Your task to perform on an android device: delete location history Image 0: 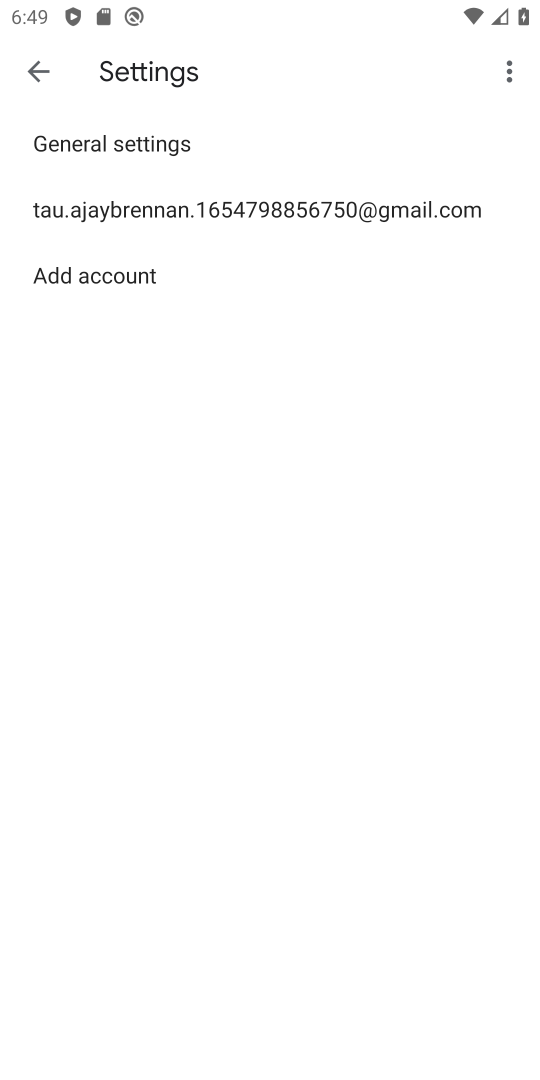
Step 0: press home button
Your task to perform on an android device: delete location history Image 1: 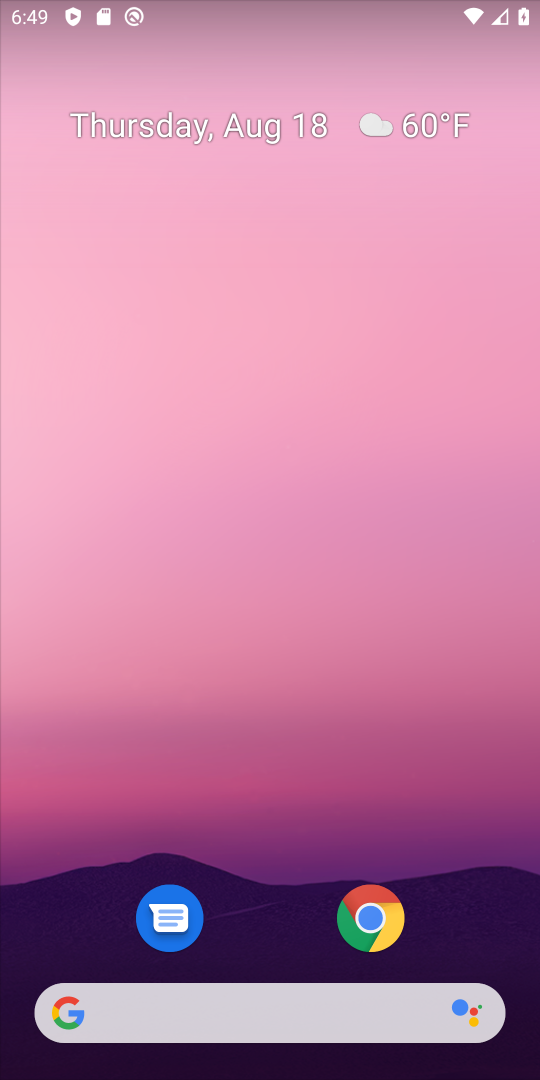
Step 1: drag from (234, 946) to (316, 18)
Your task to perform on an android device: delete location history Image 2: 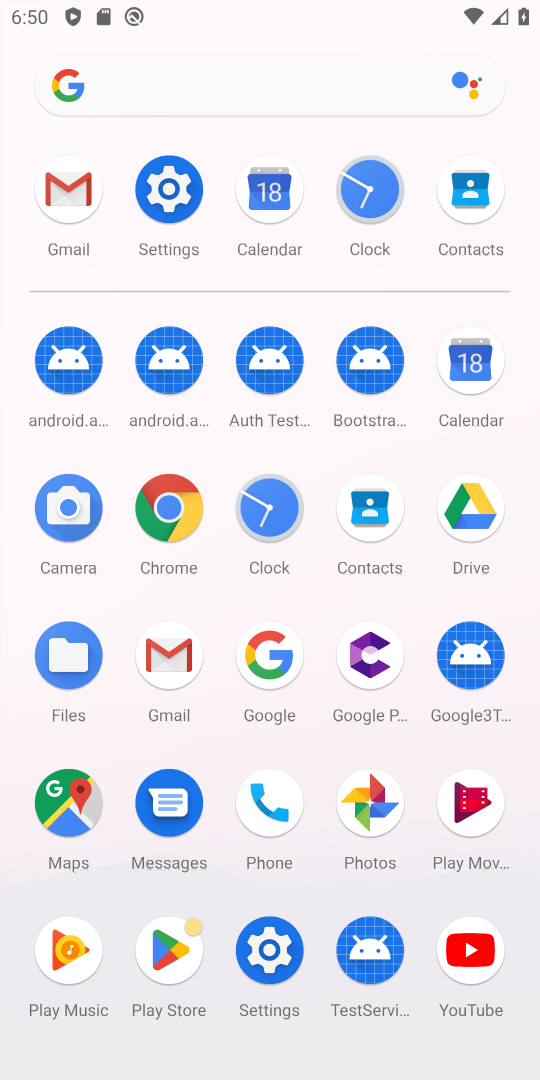
Step 2: click (64, 830)
Your task to perform on an android device: delete location history Image 3: 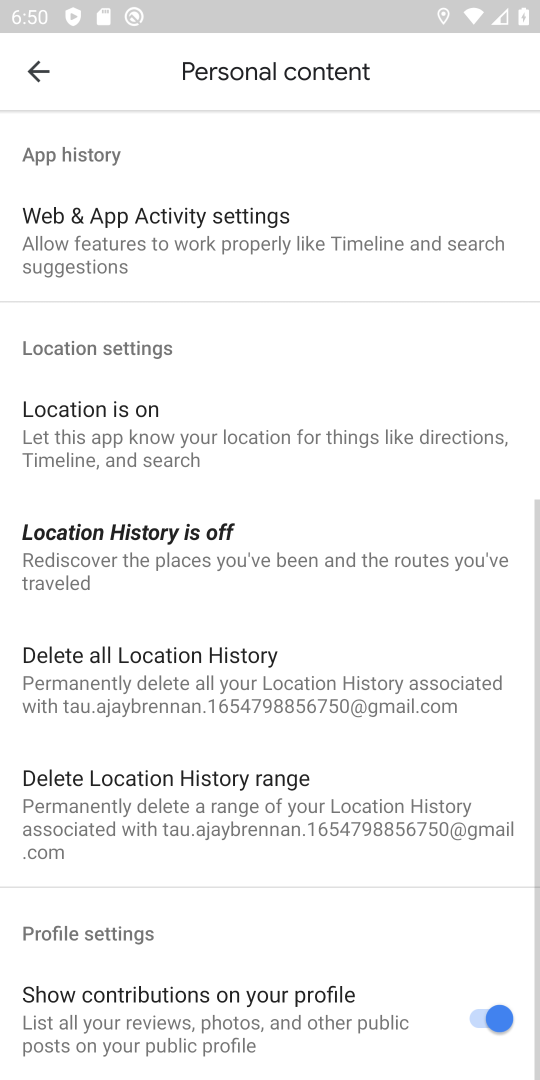
Step 3: click (217, 713)
Your task to perform on an android device: delete location history Image 4: 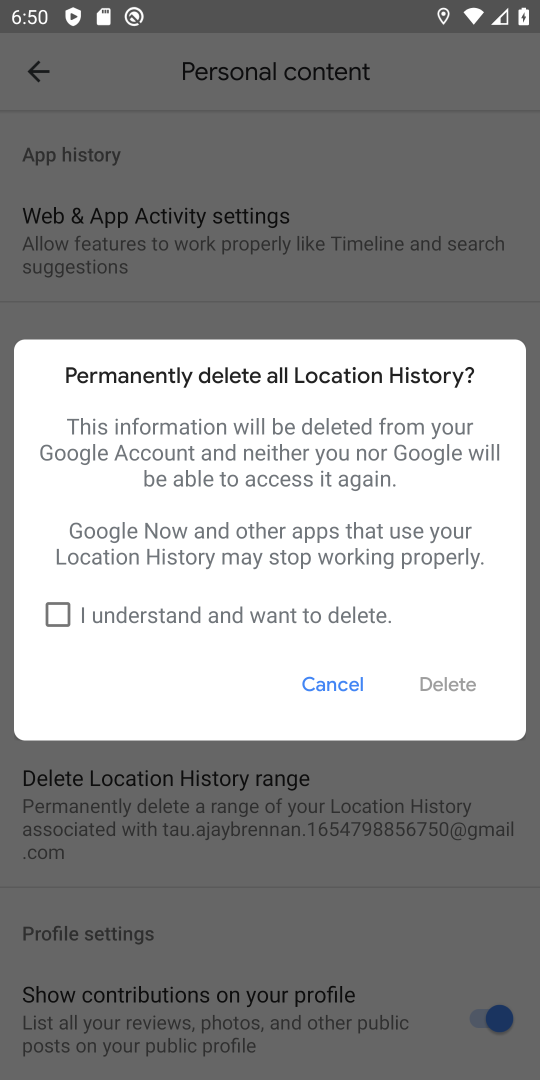
Step 4: click (57, 618)
Your task to perform on an android device: delete location history Image 5: 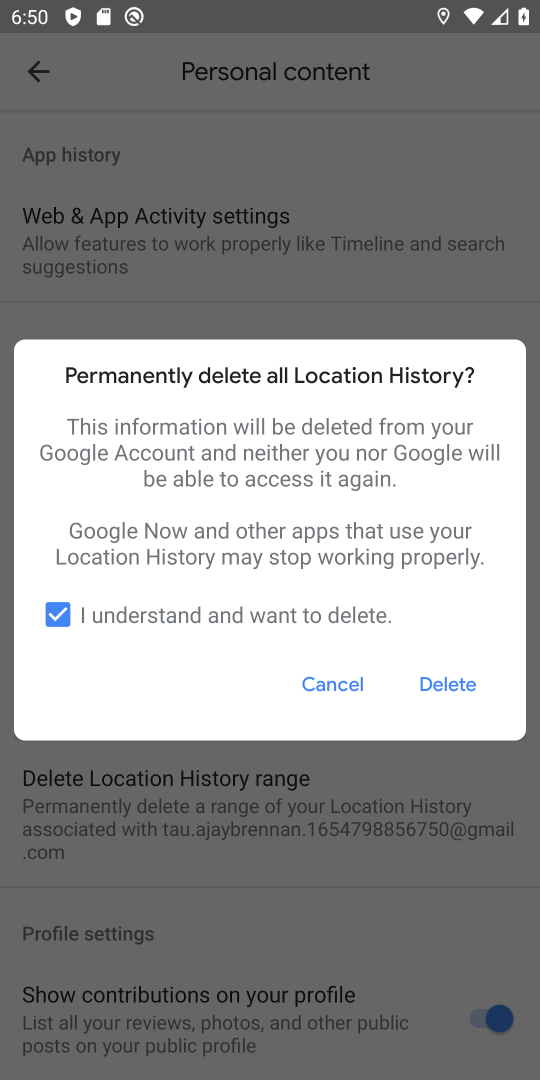
Step 5: click (454, 690)
Your task to perform on an android device: delete location history Image 6: 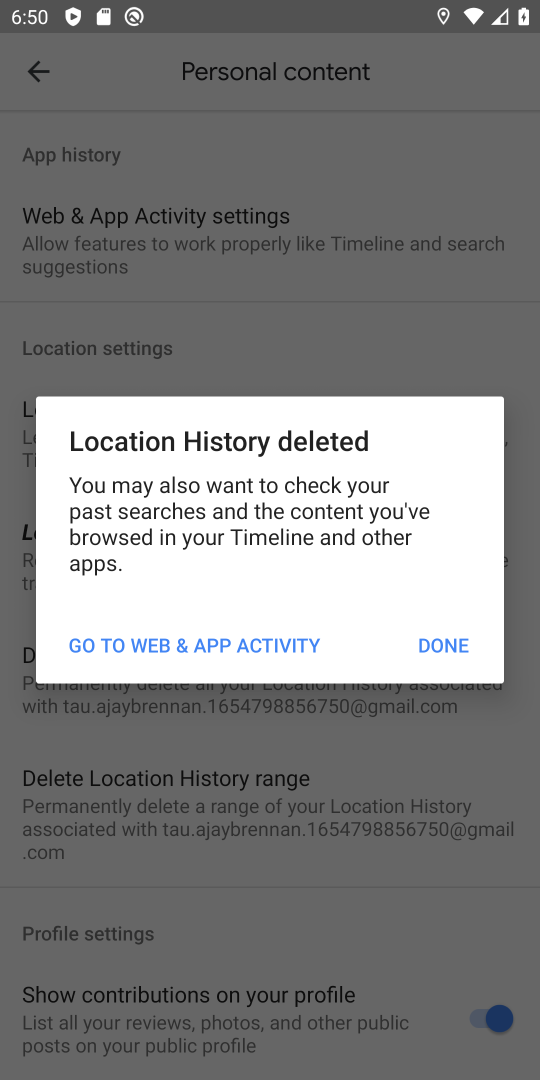
Step 6: click (447, 642)
Your task to perform on an android device: delete location history Image 7: 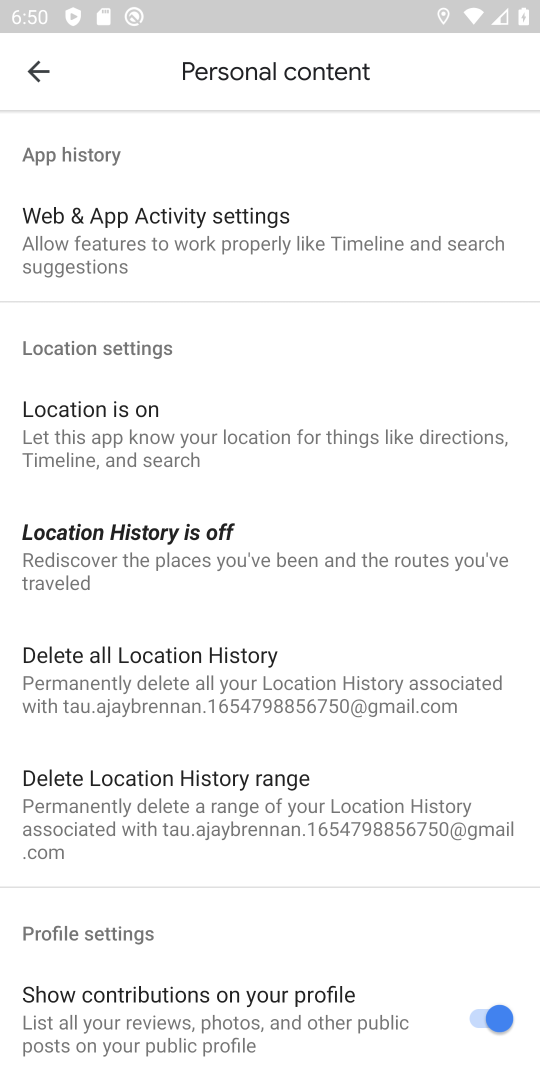
Step 7: task complete